Your task to perform on an android device: check the backup settings in the google photos Image 0: 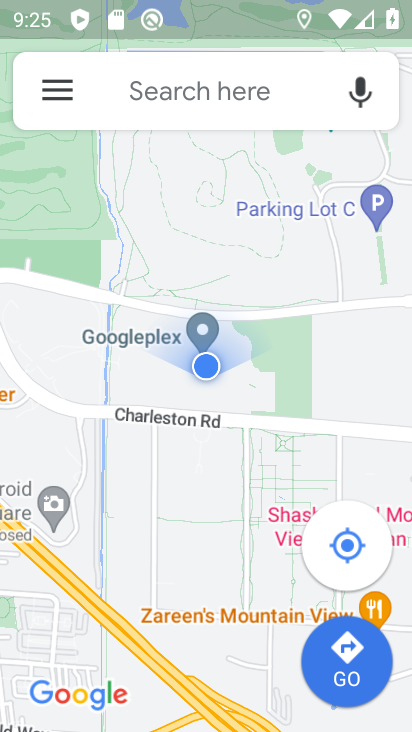
Step 0: press home button
Your task to perform on an android device: check the backup settings in the google photos Image 1: 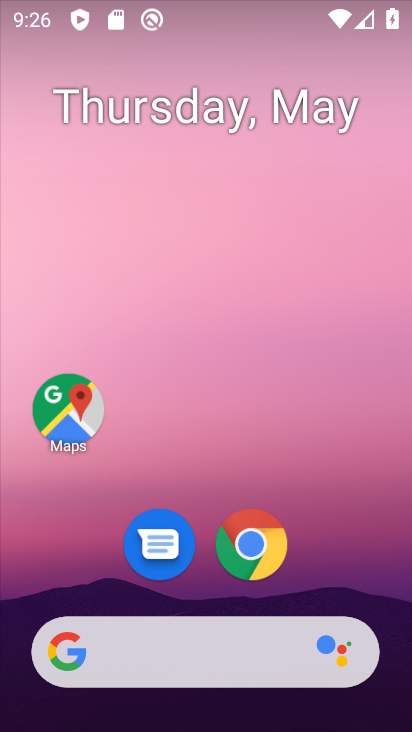
Step 1: drag from (175, 506) to (157, 182)
Your task to perform on an android device: check the backup settings in the google photos Image 2: 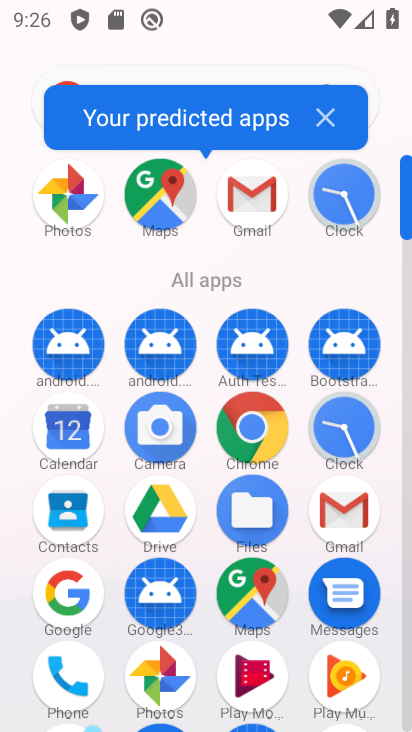
Step 2: click (161, 681)
Your task to perform on an android device: check the backup settings in the google photos Image 3: 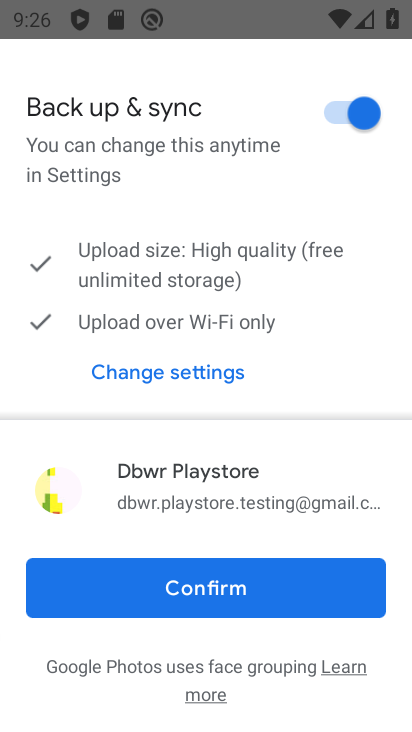
Step 3: click (219, 594)
Your task to perform on an android device: check the backup settings in the google photos Image 4: 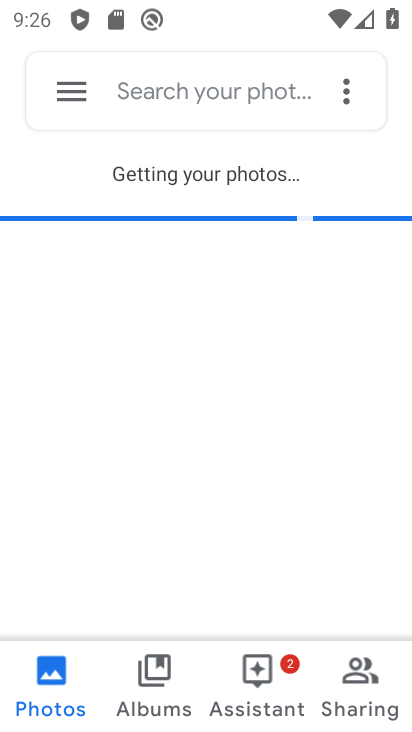
Step 4: click (71, 92)
Your task to perform on an android device: check the backup settings in the google photos Image 5: 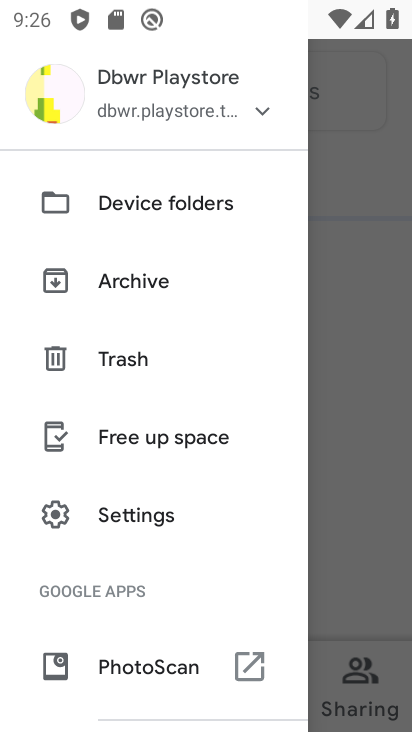
Step 5: drag from (141, 529) to (219, 176)
Your task to perform on an android device: check the backup settings in the google photos Image 6: 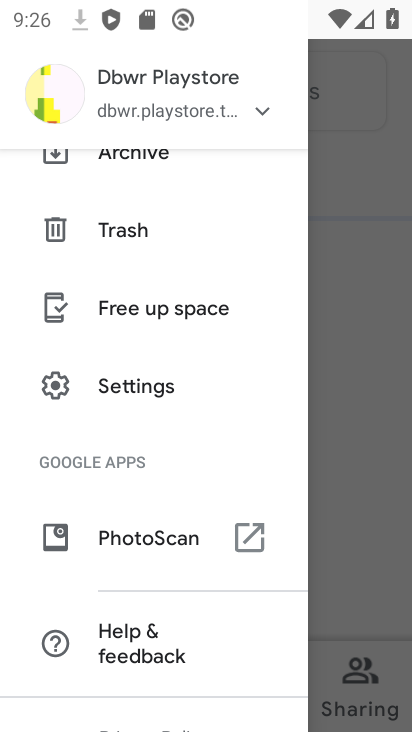
Step 6: click (140, 387)
Your task to perform on an android device: check the backup settings in the google photos Image 7: 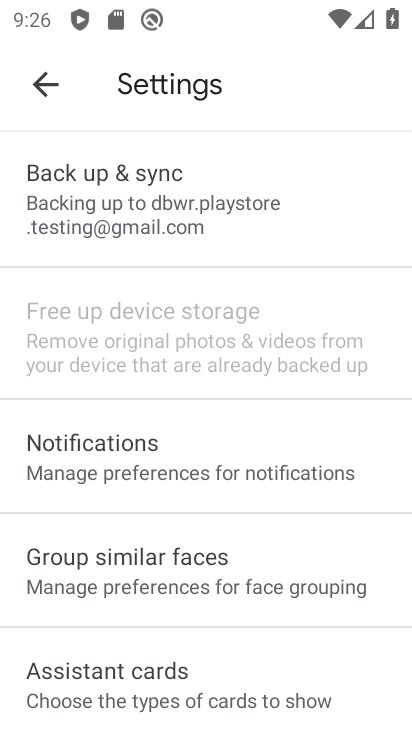
Step 7: click (154, 185)
Your task to perform on an android device: check the backup settings in the google photos Image 8: 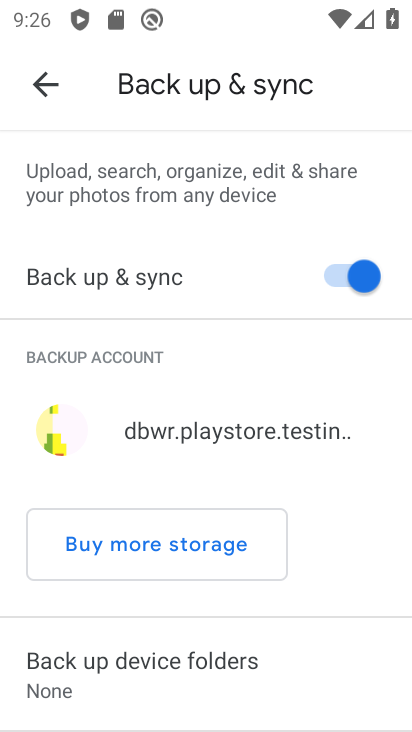
Step 8: task complete